Your task to perform on an android device: Open network settings Image 0: 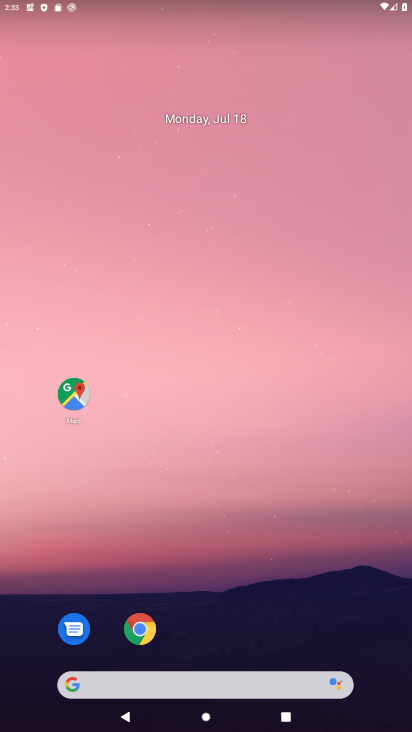
Step 0: drag from (226, 639) to (230, 180)
Your task to perform on an android device: Open network settings Image 1: 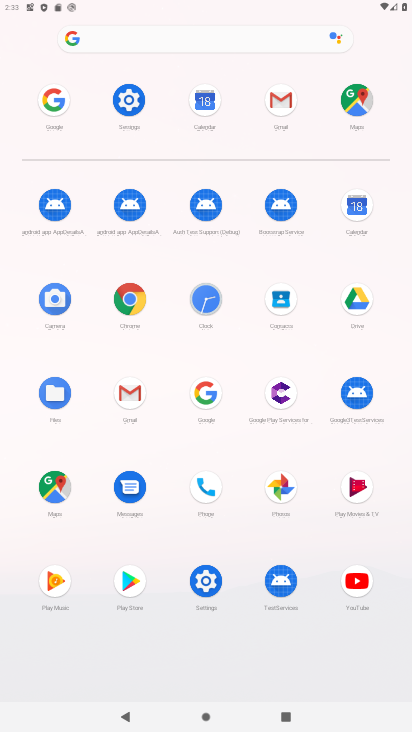
Step 1: click (133, 104)
Your task to perform on an android device: Open network settings Image 2: 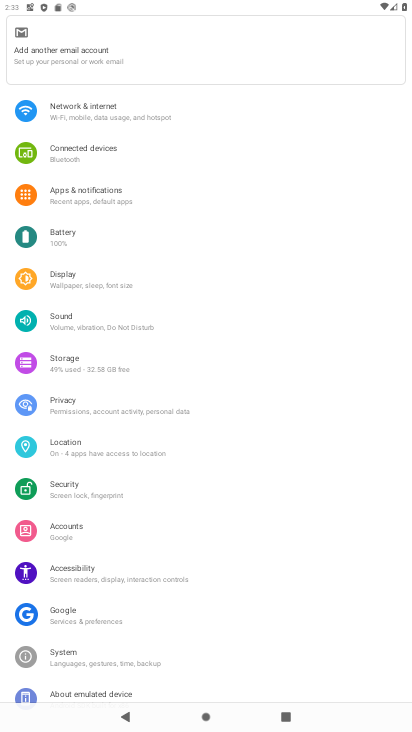
Step 2: click (133, 104)
Your task to perform on an android device: Open network settings Image 3: 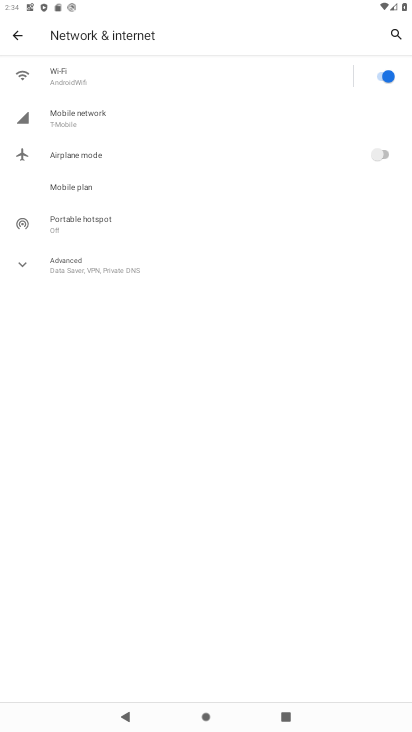
Step 3: task complete